Your task to perform on an android device: Find coffee shops on Maps Image 0: 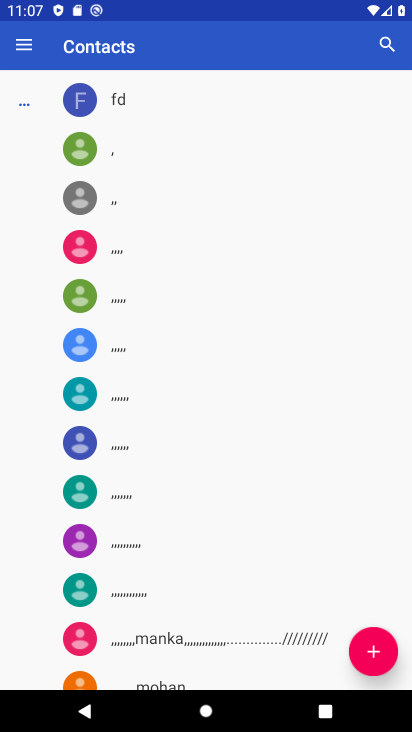
Step 0: press home button
Your task to perform on an android device: Find coffee shops on Maps Image 1: 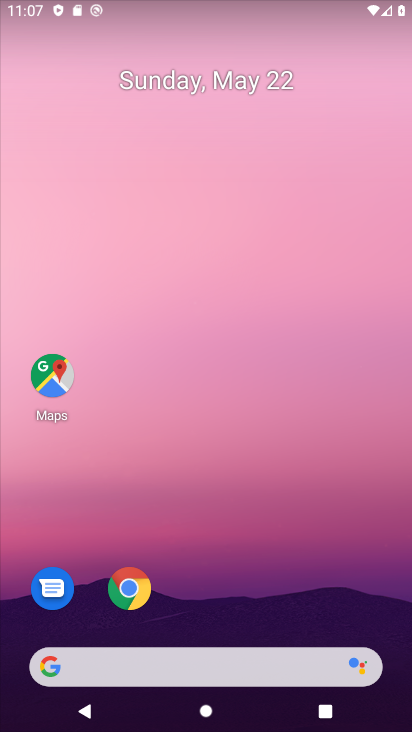
Step 1: click (61, 381)
Your task to perform on an android device: Find coffee shops on Maps Image 2: 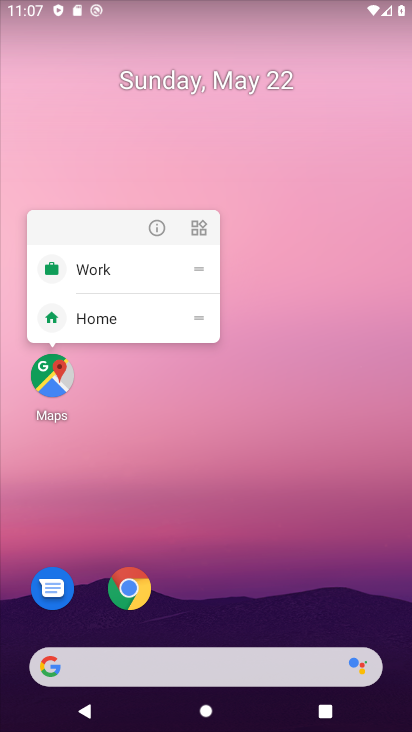
Step 2: click (40, 388)
Your task to perform on an android device: Find coffee shops on Maps Image 3: 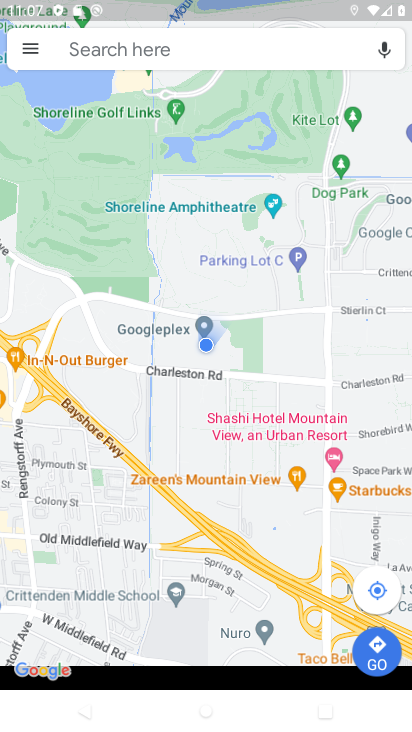
Step 3: click (131, 41)
Your task to perform on an android device: Find coffee shops on Maps Image 4: 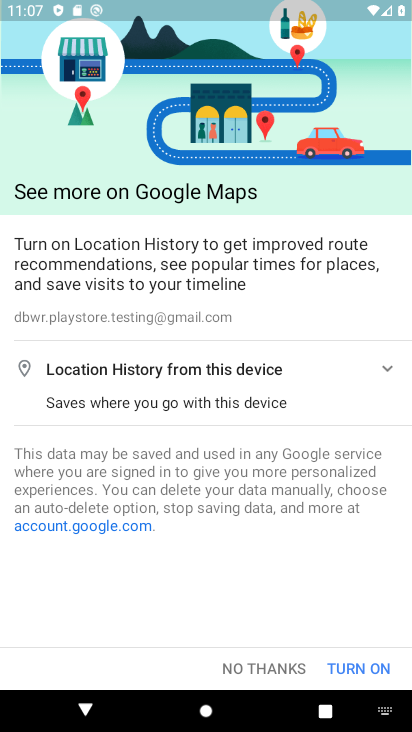
Step 4: click (371, 665)
Your task to perform on an android device: Find coffee shops on Maps Image 5: 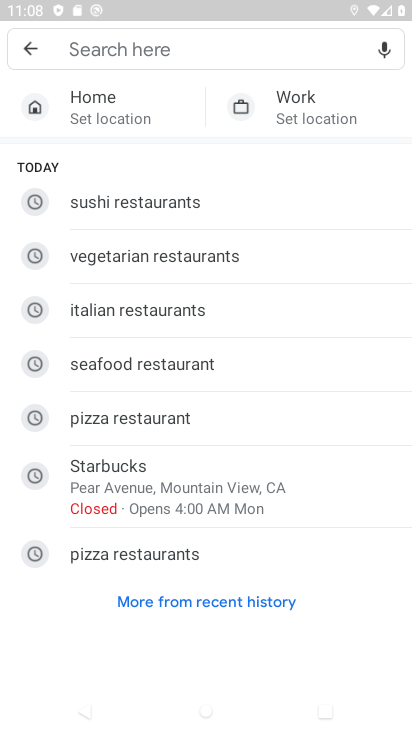
Step 5: click (122, 54)
Your task to perform on an android device: Find coffee shops on Maps Image 6: 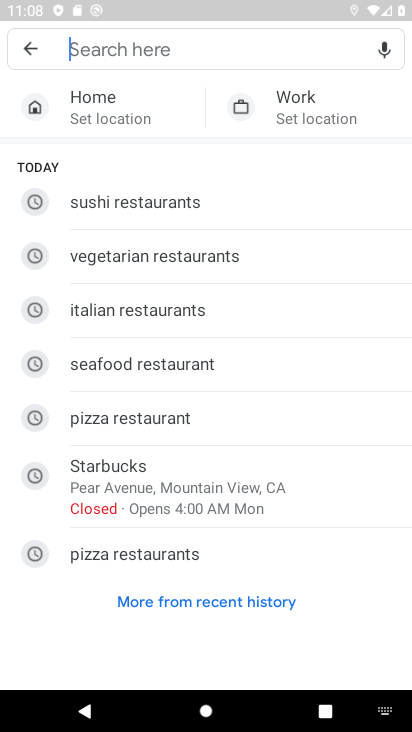
Step 6: click (184, 602)
Your task to perform on an android device: Find coffee shops on Maps Image 7: 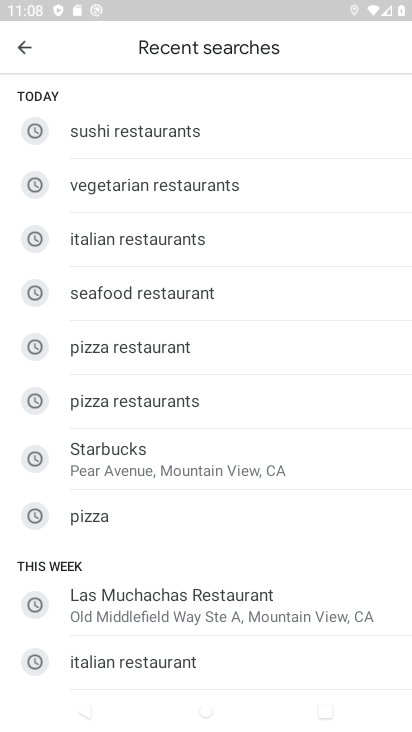
Step 7: type "coffee shopes"
Your task to perform on an android device: Find coffee shops on Maps Image 8: 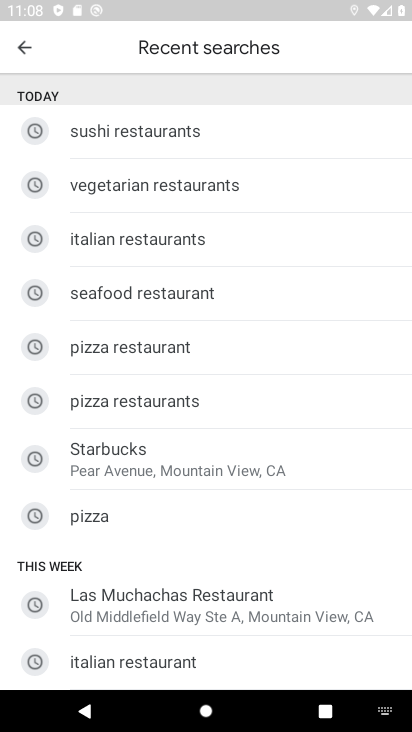
Step 8: click (19, 47)
Your task to perform on an android device: Find coffee shops on Maps Image 9: 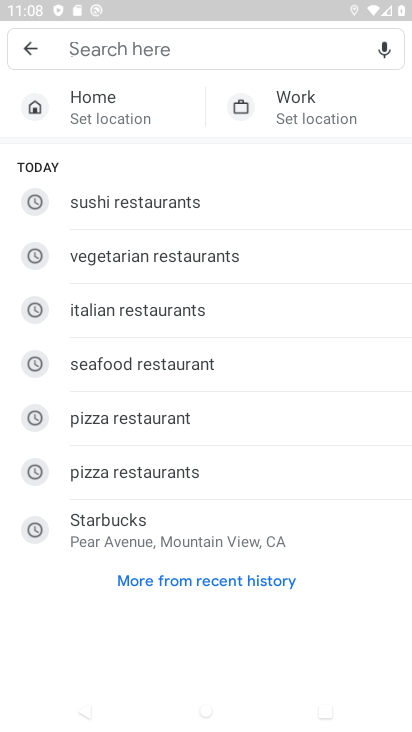
Step 9: click (86, 48)
Your task to perform on an android device: Find coffee shops on Maps Image 10: 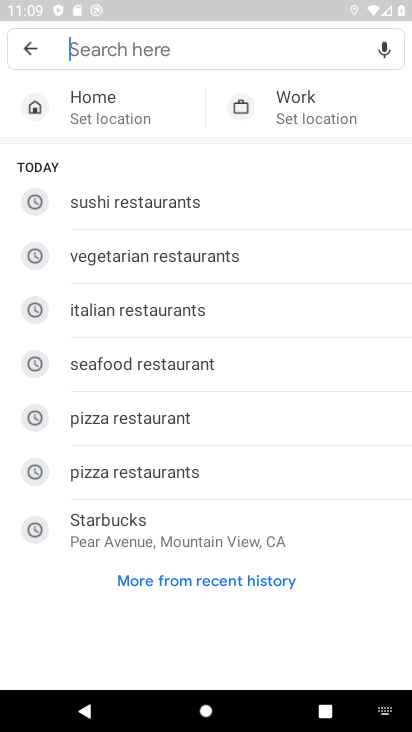
Step 10: type "coffee shopes"
Your task to perform on an android device: Find coffee shops on Maps Image 11: 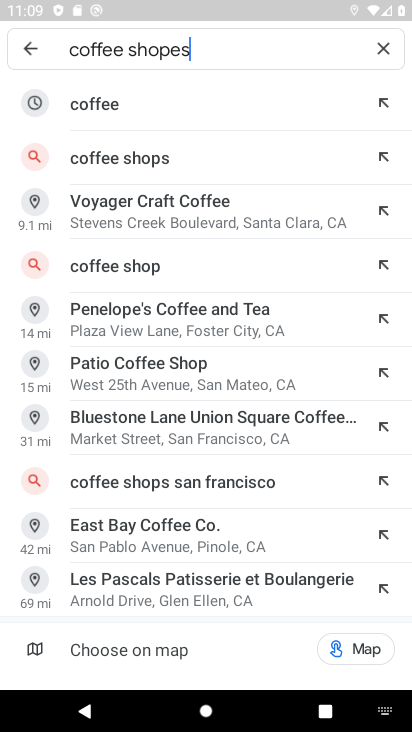
Step 11: click (91, 156)
Your task to perform on an android device: Find coffee shops on Maps Image 12: 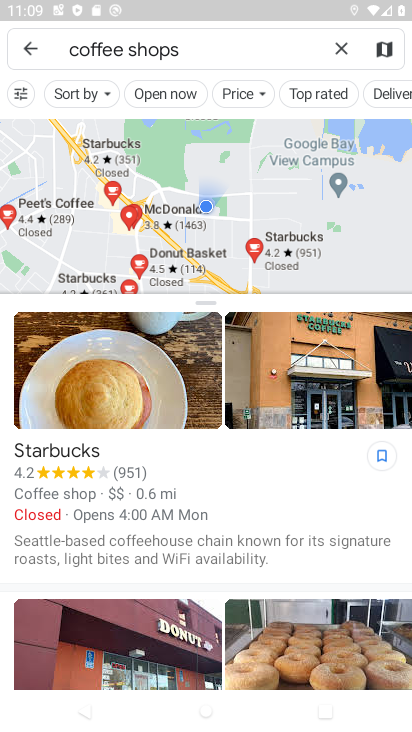
Step 12: task complete